Your task to perform on an android device: find which apps use the phone's location Image 0: 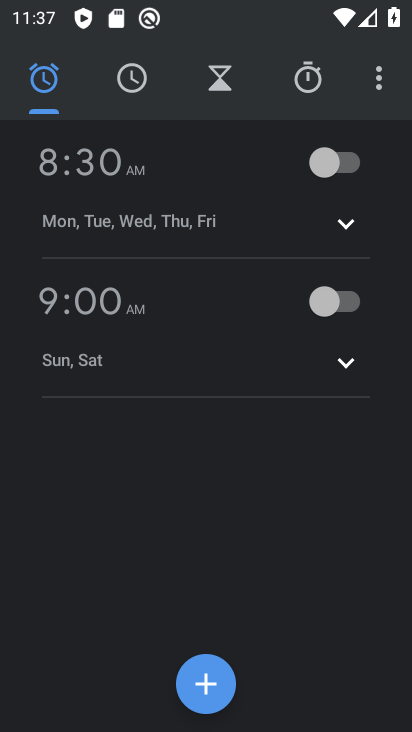
Step 0: press home button
Your task to perform on an android device: find which apps use the phone's location Image 1: 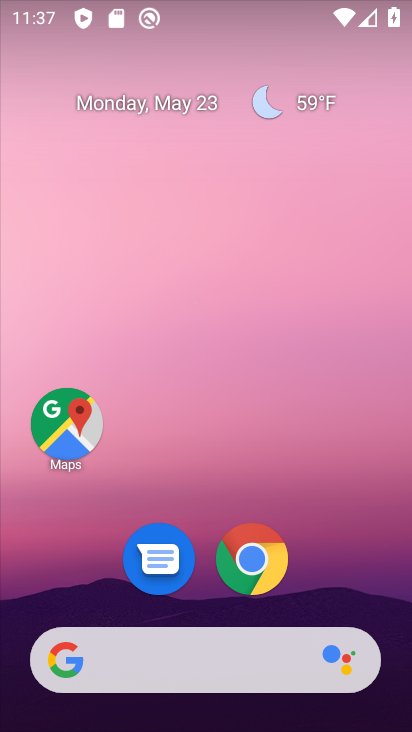
Step 1: drag from (403, 633) to (402, 130)
Your task to perform on an android device: find which apps use the phone's location Image 2: 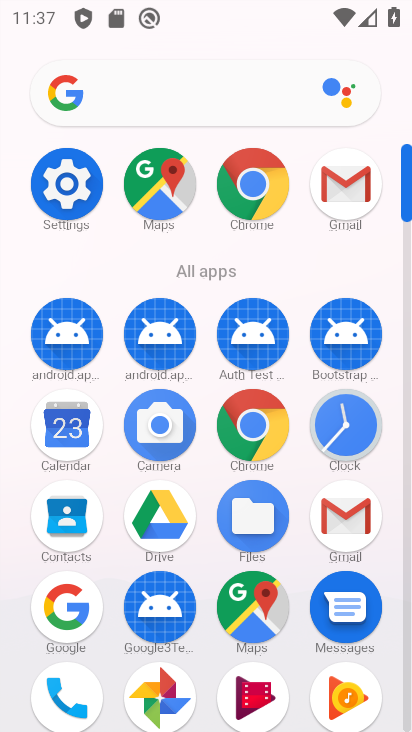
Step 2: click (53, 186)
Your task to perform on an android device: find which apps use the phone's location Image 3: 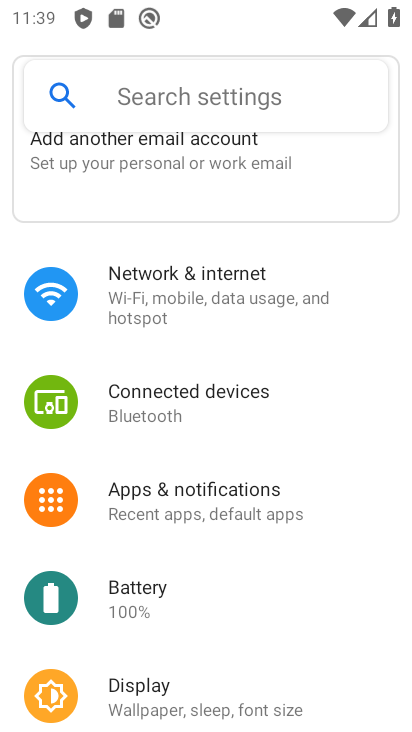
Step 3: drag from (346, 674) to (350, 380)
Your task to perform on an android device: find which apps use the phone's location Image 4: 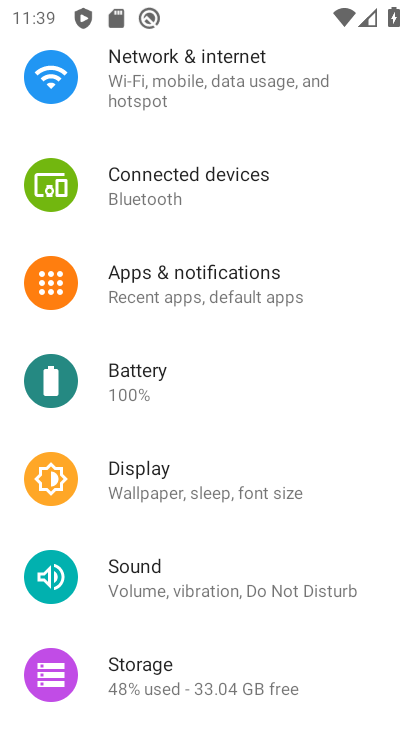
Step 4: drag from (388, 688) to (373, 169)
Your task to perform on an android device: find which apps use the phone's location Image 5: 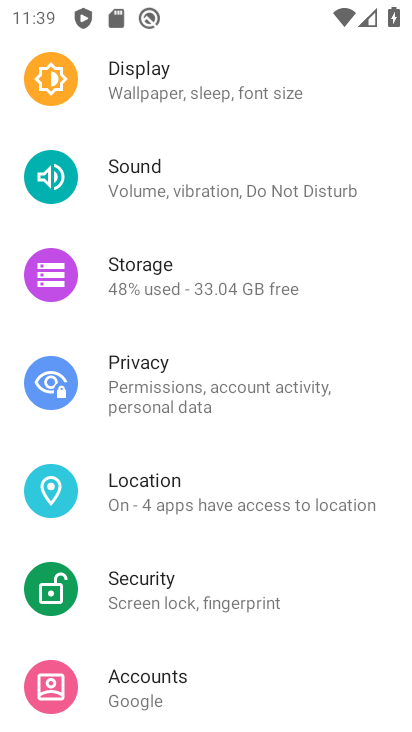
Step 5: click (117, 495)
Your task to perform on an android device: find which apps use the phone's location Image 6: 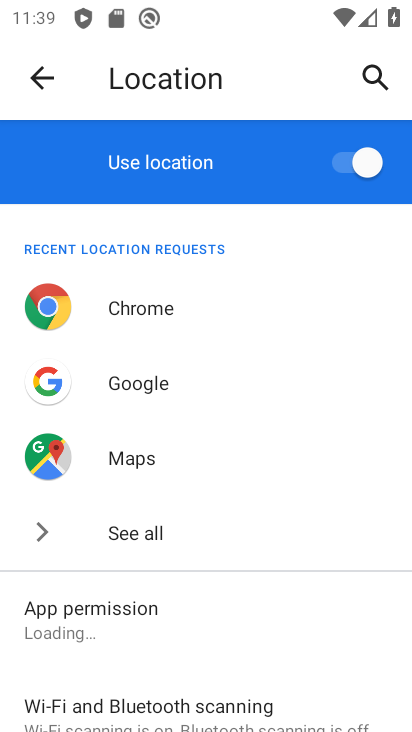
Step 6: drag from (301, 616) to (304, 360)
Your task to perform on an android device: find which apps use the phone's location Image 7: 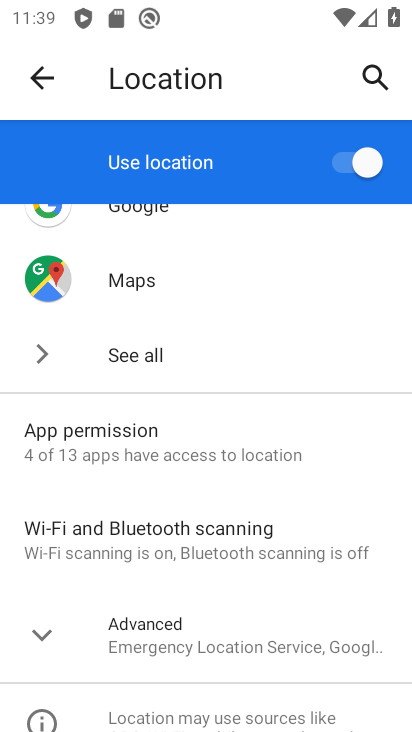
Step 7: click (95, 441)
Your task to perform on an android device: find which apps use the phone's location Image 8: 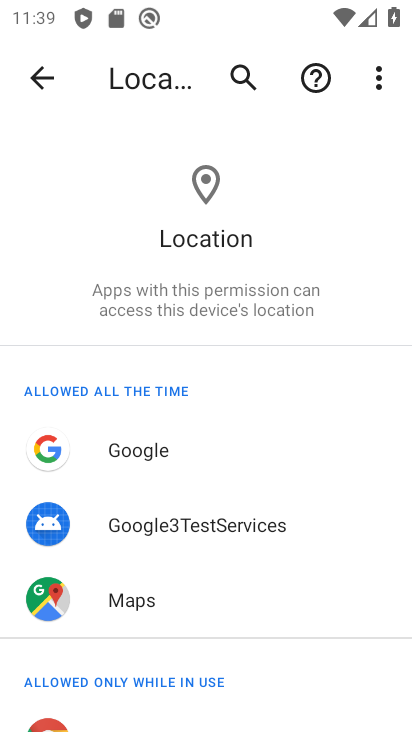
Step 8: task complete